Your task to perform on an android device: move an email to a new category in the gmail app Image 0: 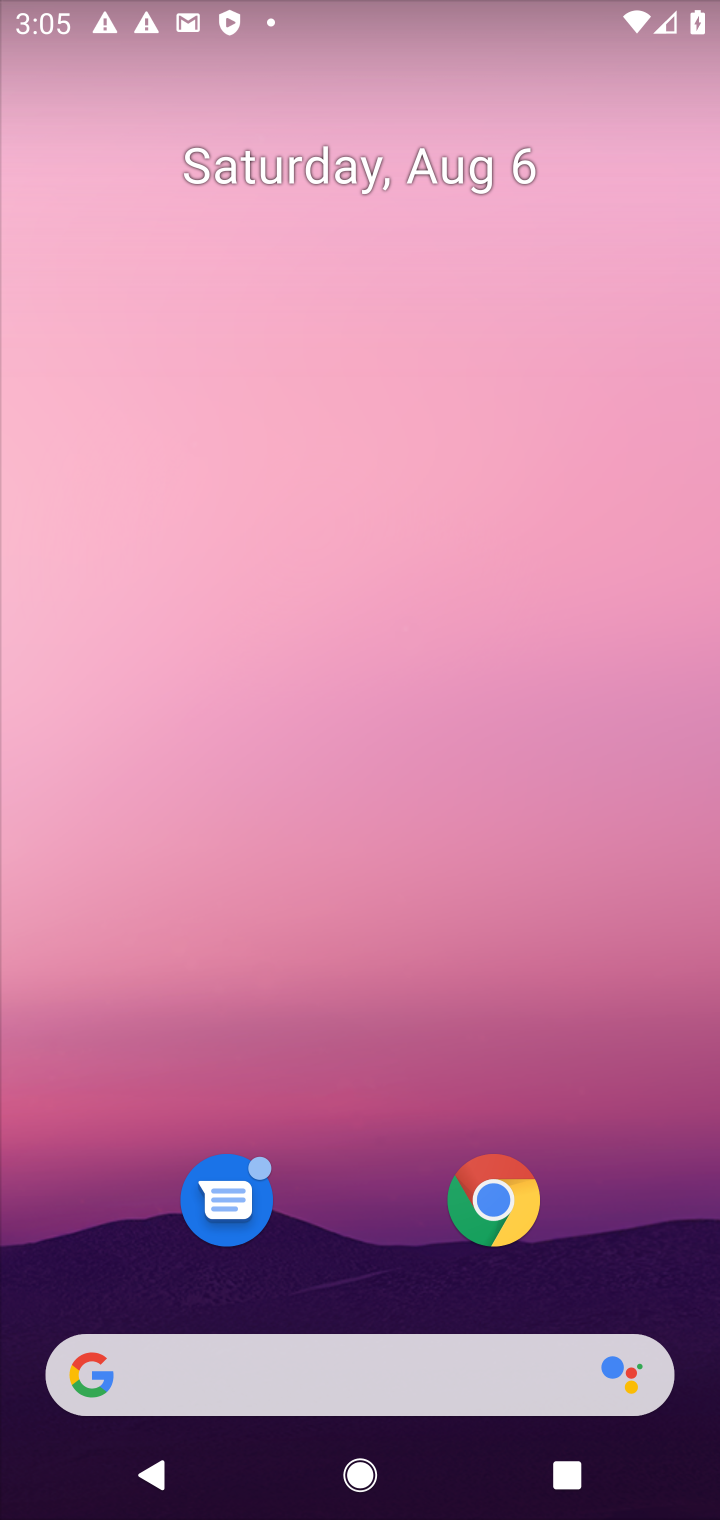
Step 0: drag from (380, 1127) to (481, 510)
Your task to perform on an android device: move an email to a new category in the gmail app Image 1: 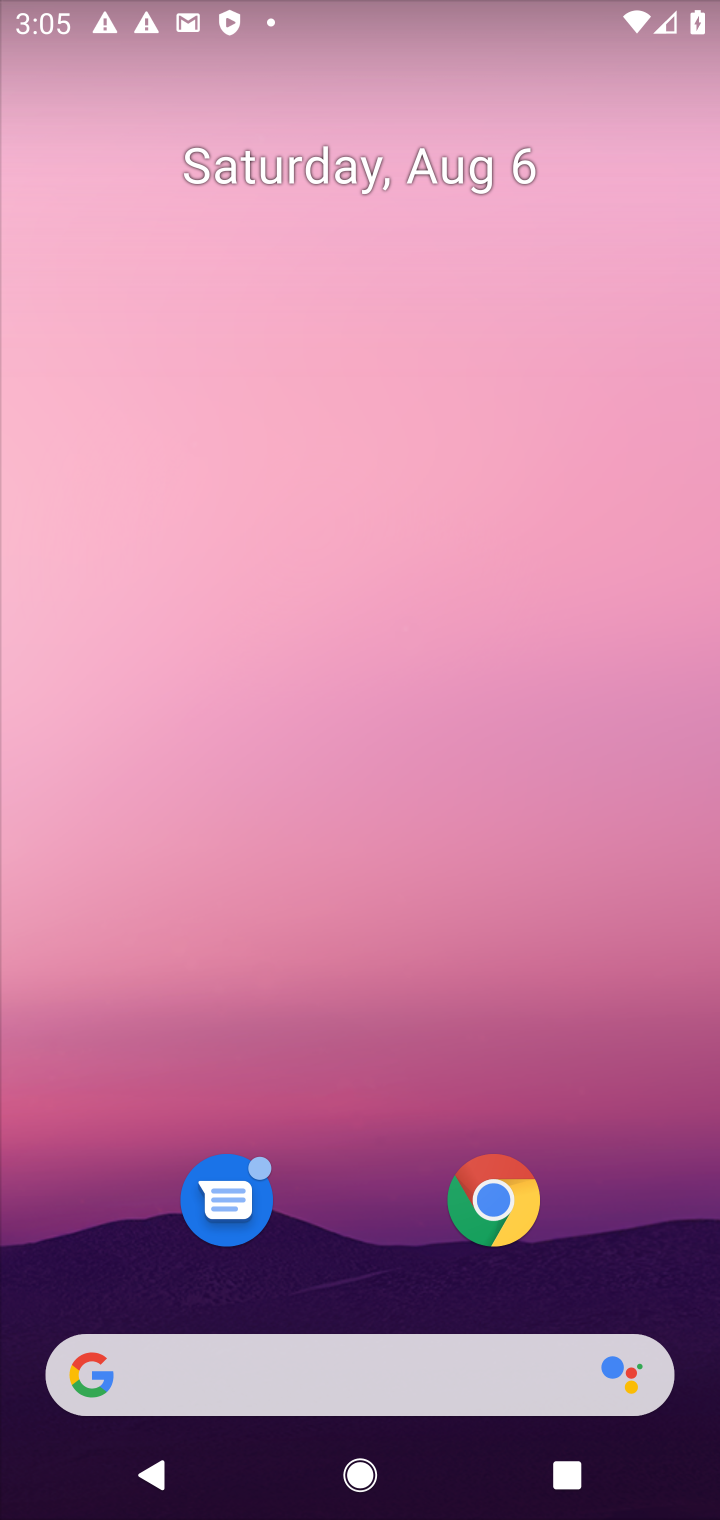
Step 1: drag from (400, 1172) to (504, 385)
Your task to perform on an android device: move an email to a new category in the gmail app Image 2: 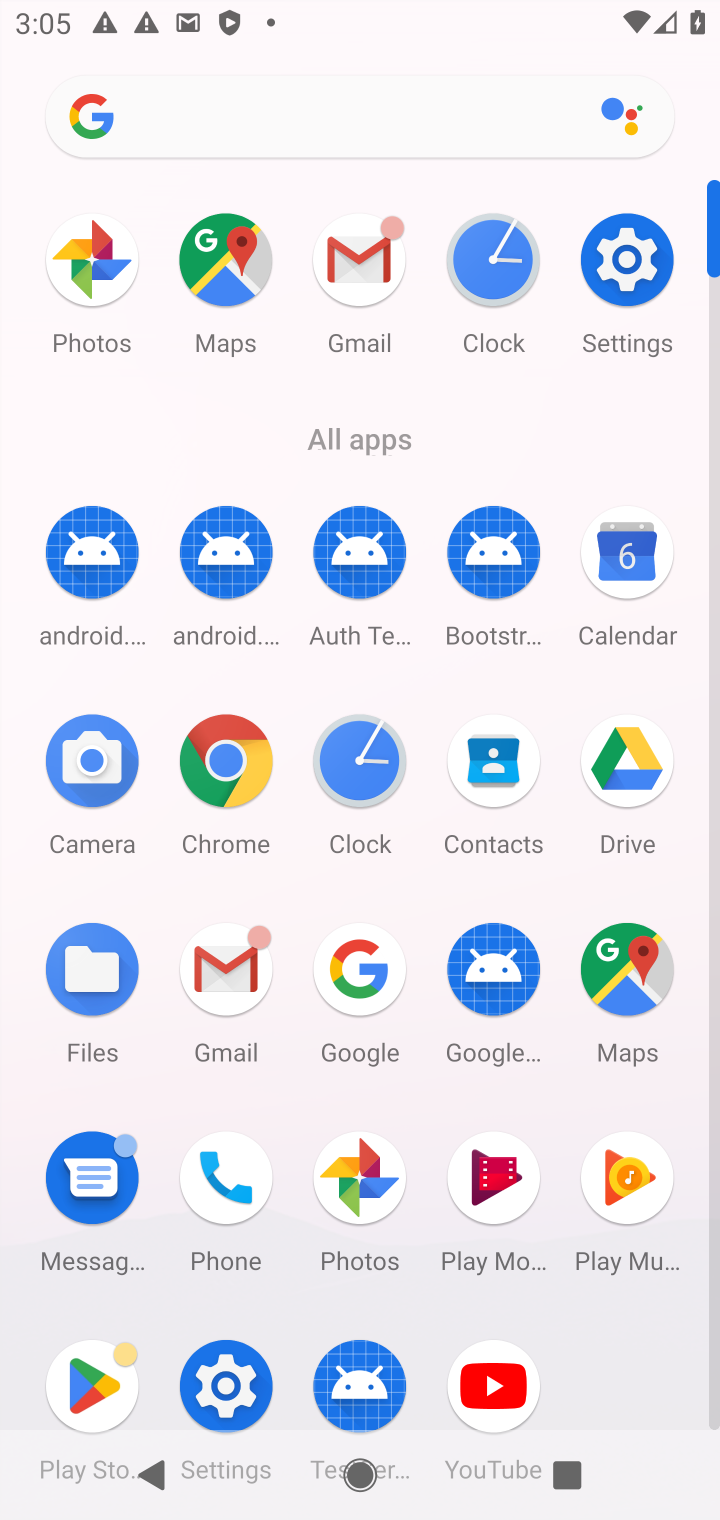
Step 2: click (234, 945)
Your task to perform on an android device: move an email to a new category in the gmail app Image 3: 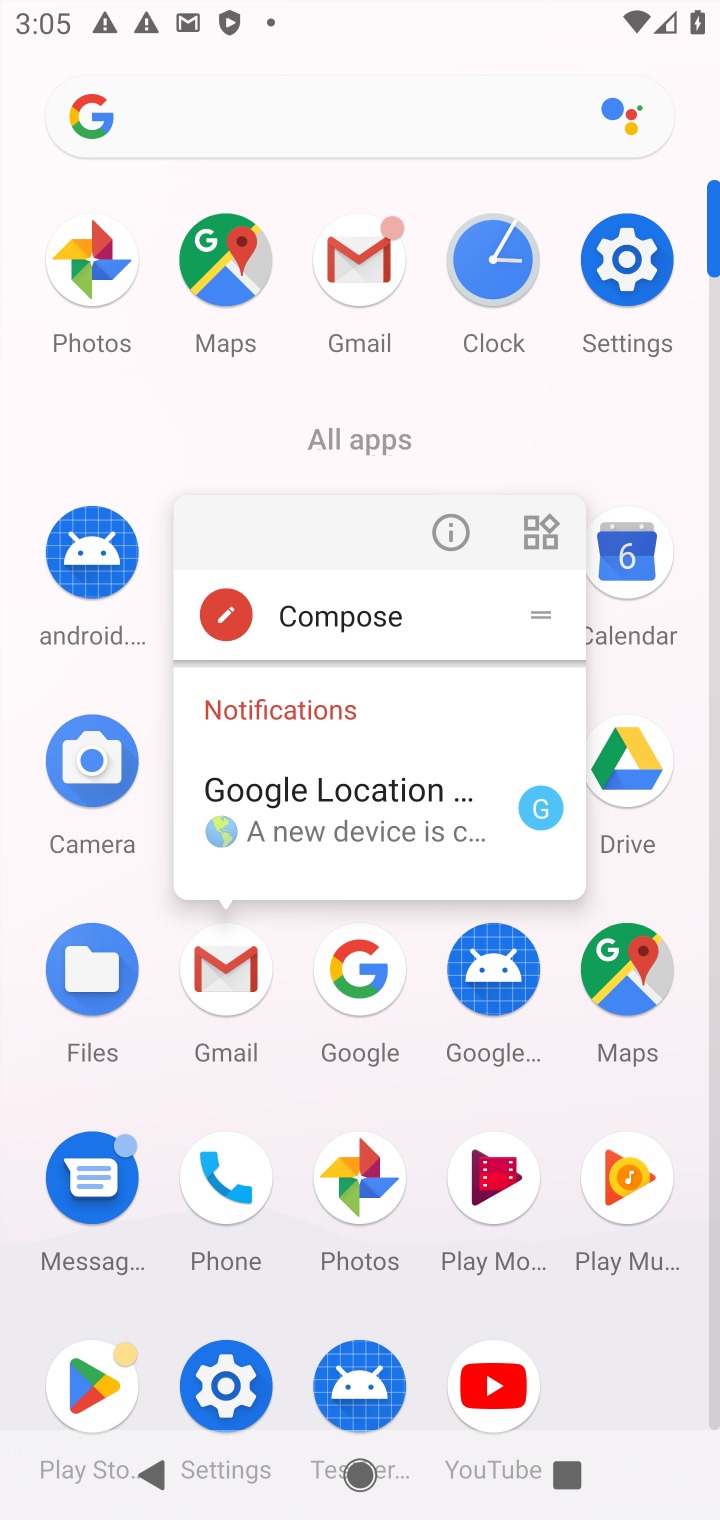
Step 3: click (236, 983)
Your task to perform on an android device: move an email to a new category in the gmail app Image 4: 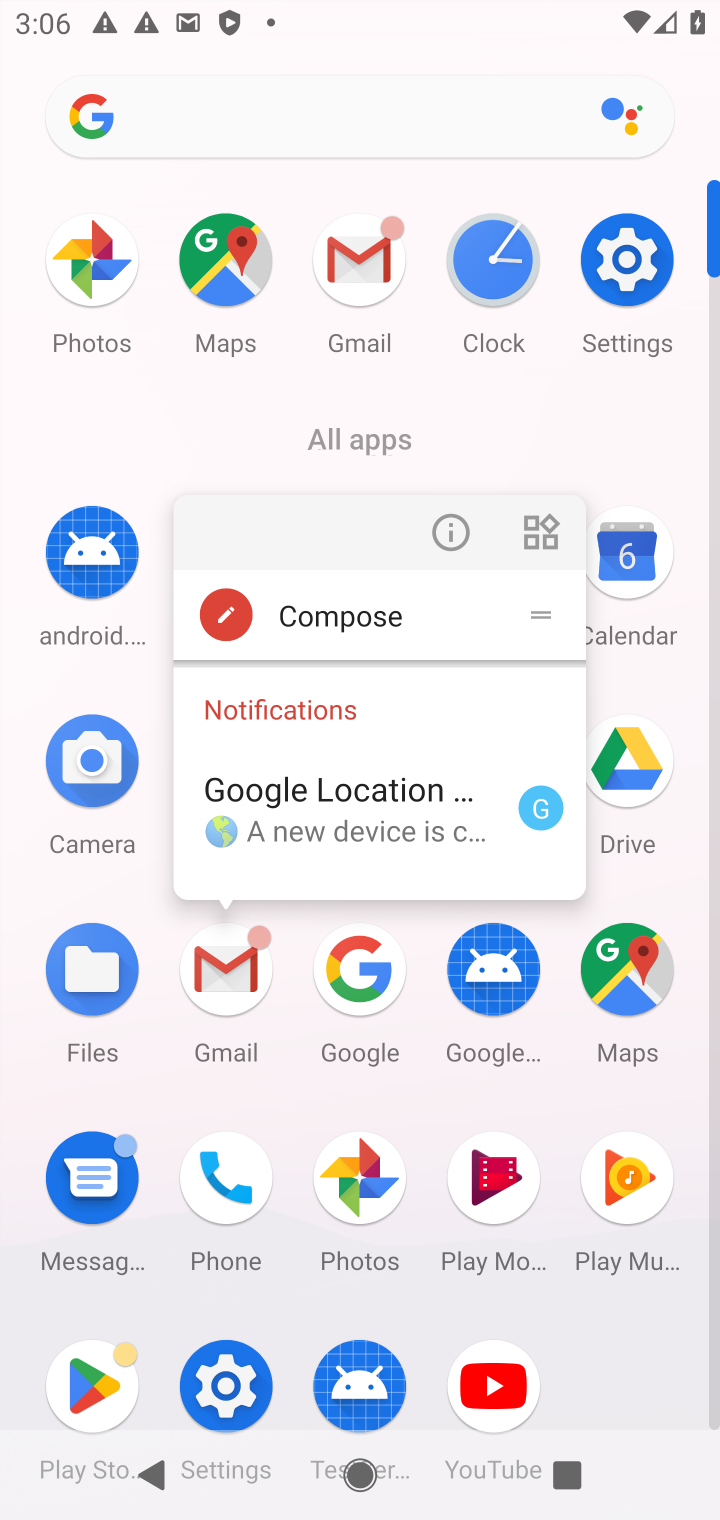
Step 4: task complete